Your task to perform on an android device: open app "YouTube Kids" (install if not already installed) Image 0: 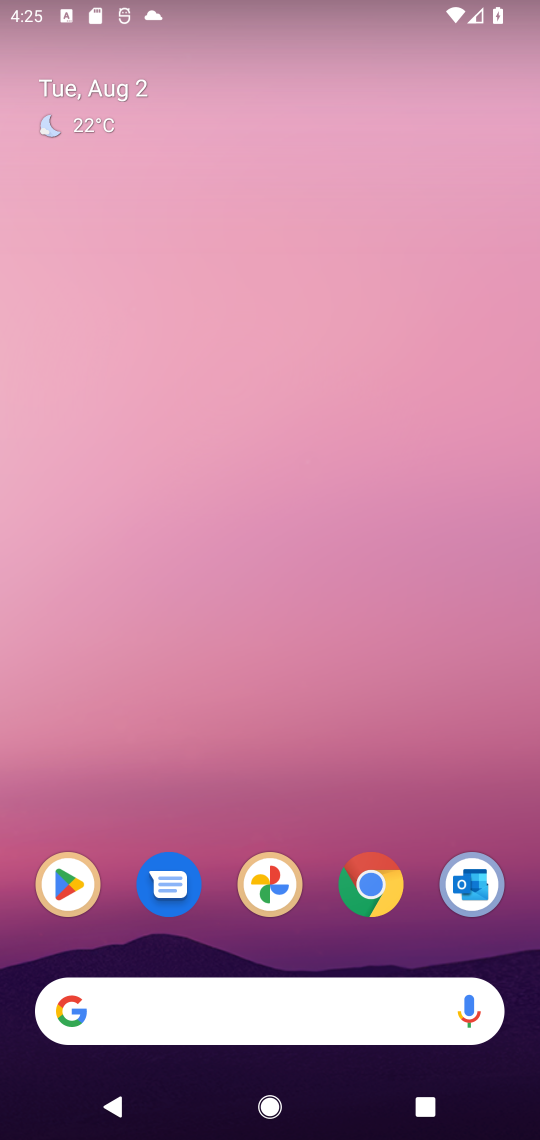
Step 0: click (62, 887)
Your task to perform on an android device: open app "YouTube Kids" (install if not already installed) Image 1: 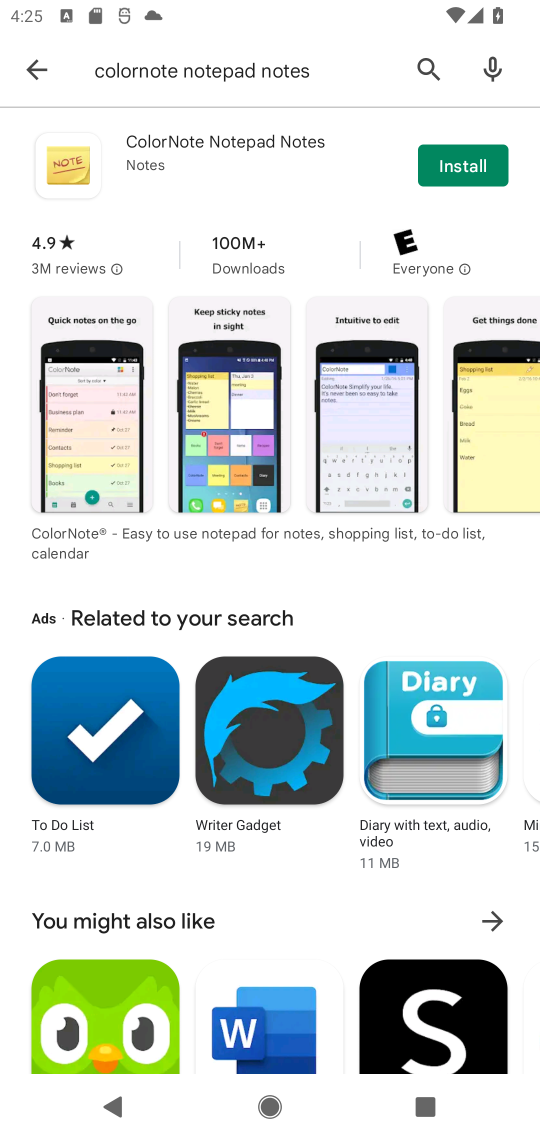
Step 1: click (40, 83)
Your task to perform on an android device: open app "YouTube Kids" (install if not already installed) Image 2: 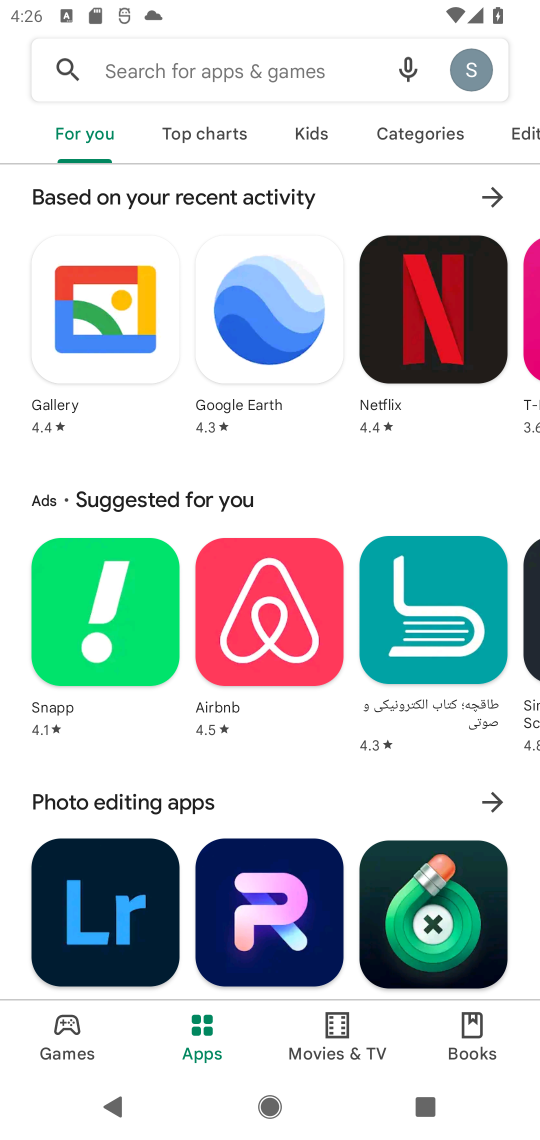
Step 2: click (174, 87)
Your task to perform on an android device: open app "YouTube Kids" (install if not already installed) Image 3: 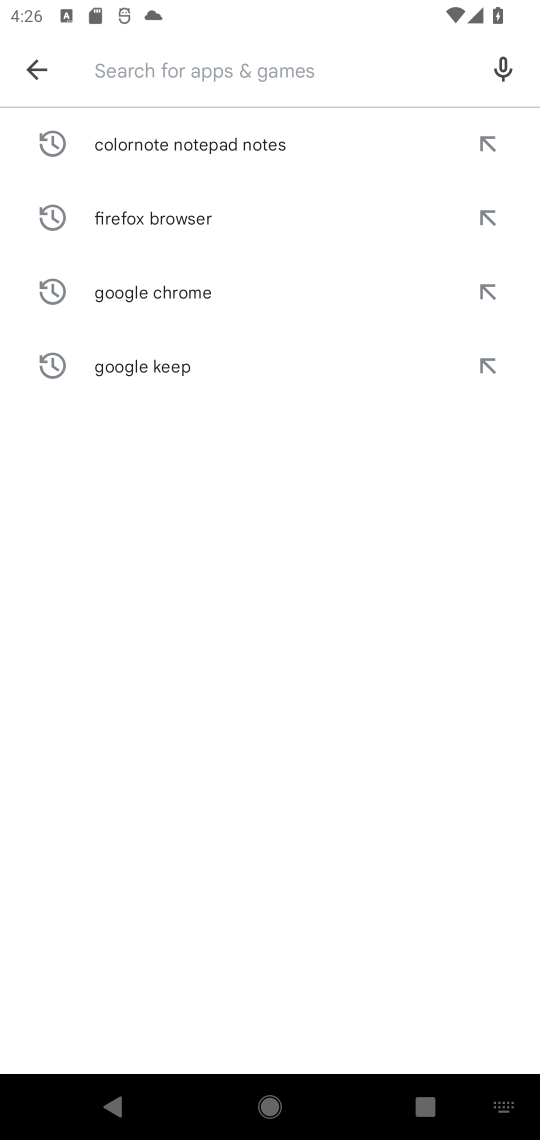
Step 3: type "YouTube Kids"
Your task to perform on an android device: open app "YouTube Kids" (install if not already installed) Image 4: 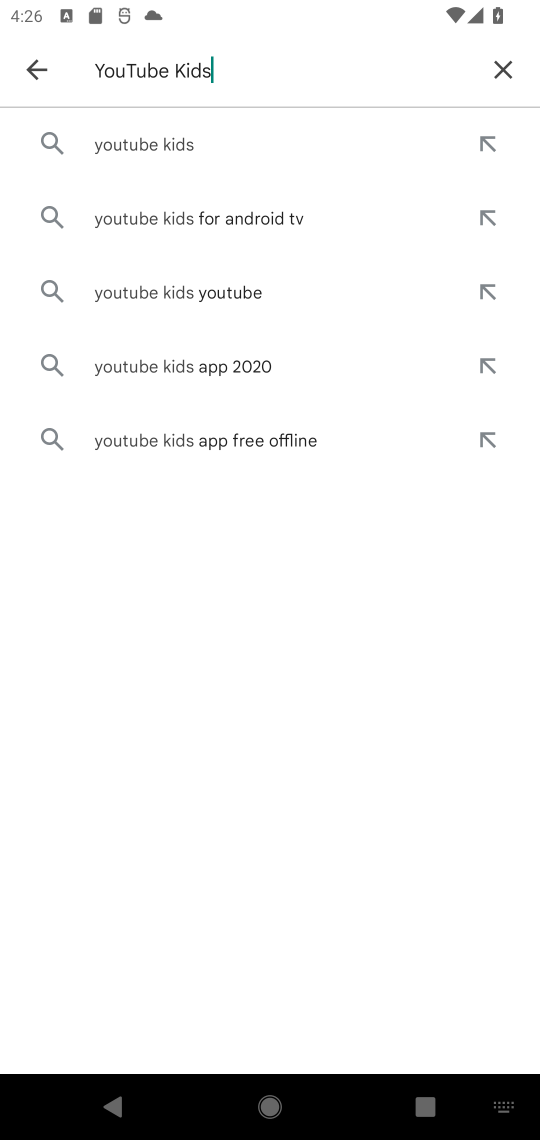
Step 4: click (180, 160)
Your task to perform on an android device: open app "YouTube Kids" (install if not already installed) Image 5: 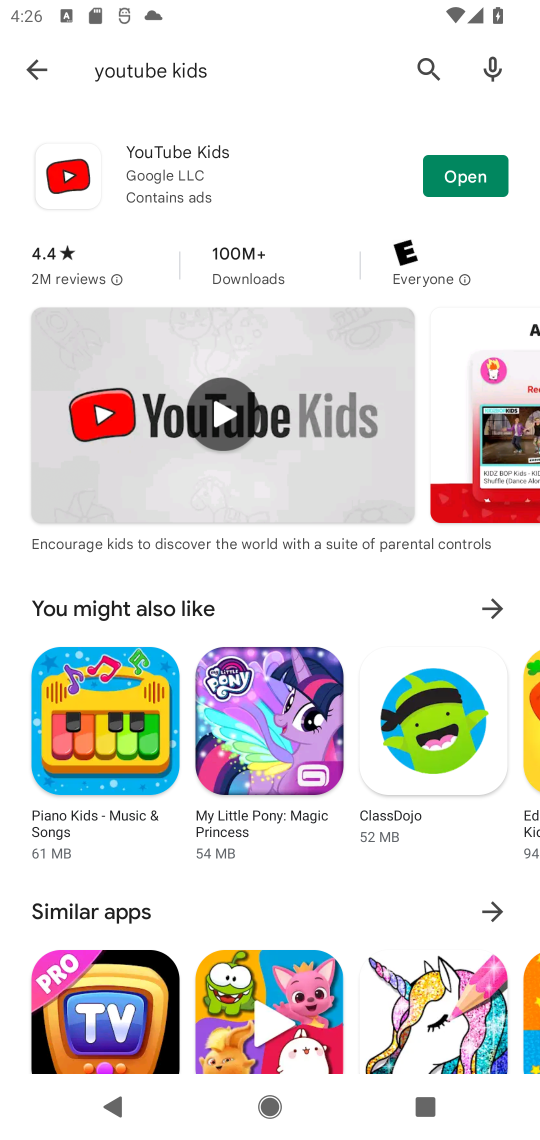
Step 5: click (455, 177)
Your task to perform on an android device: open app "YouTube Kids" (install if not already installed) Image 6: 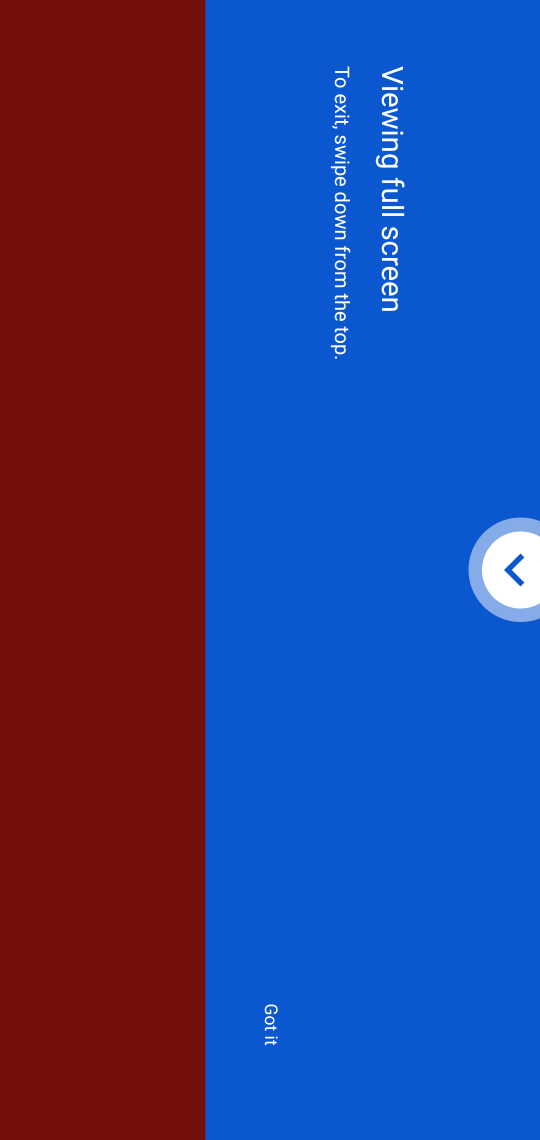
Step 6: task complete